Your task to perform on an android device: Go to privacy settings Image 0: 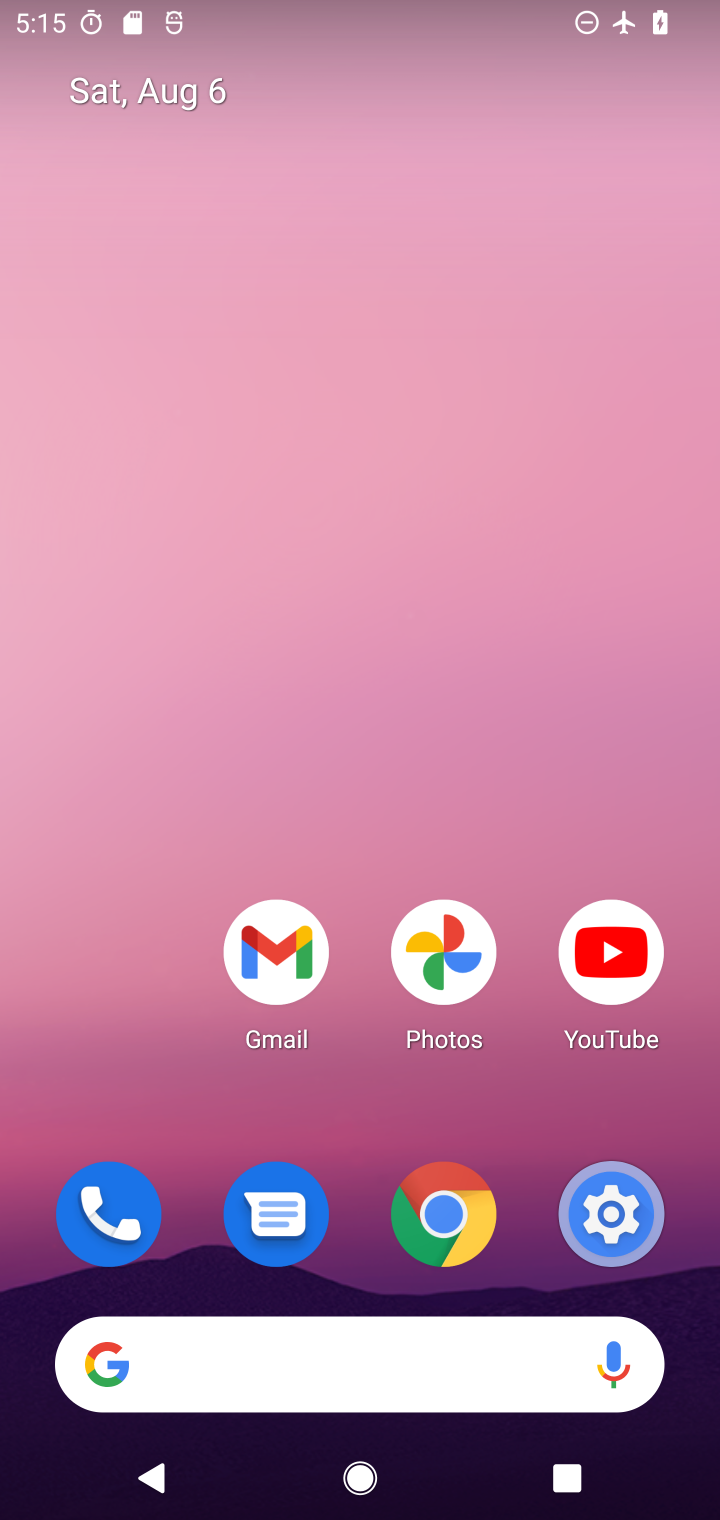
Step 0: click (608, 1209)
Your task to perform on an android device: Go to privacy settings Image 1: 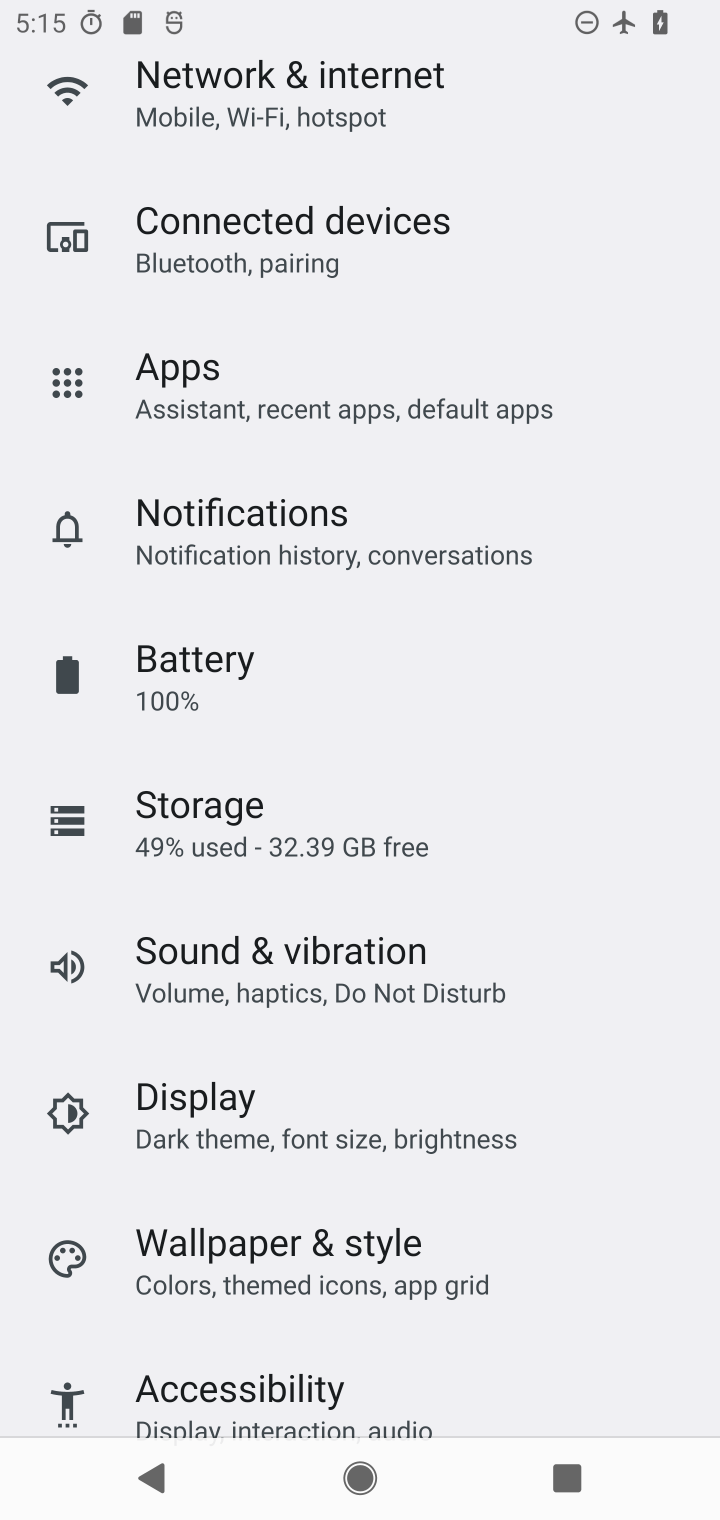
Step 1: drag from (326, 1254) to (282, 706)
Your task to perform on an android device: Go to privacy settings Image 2: 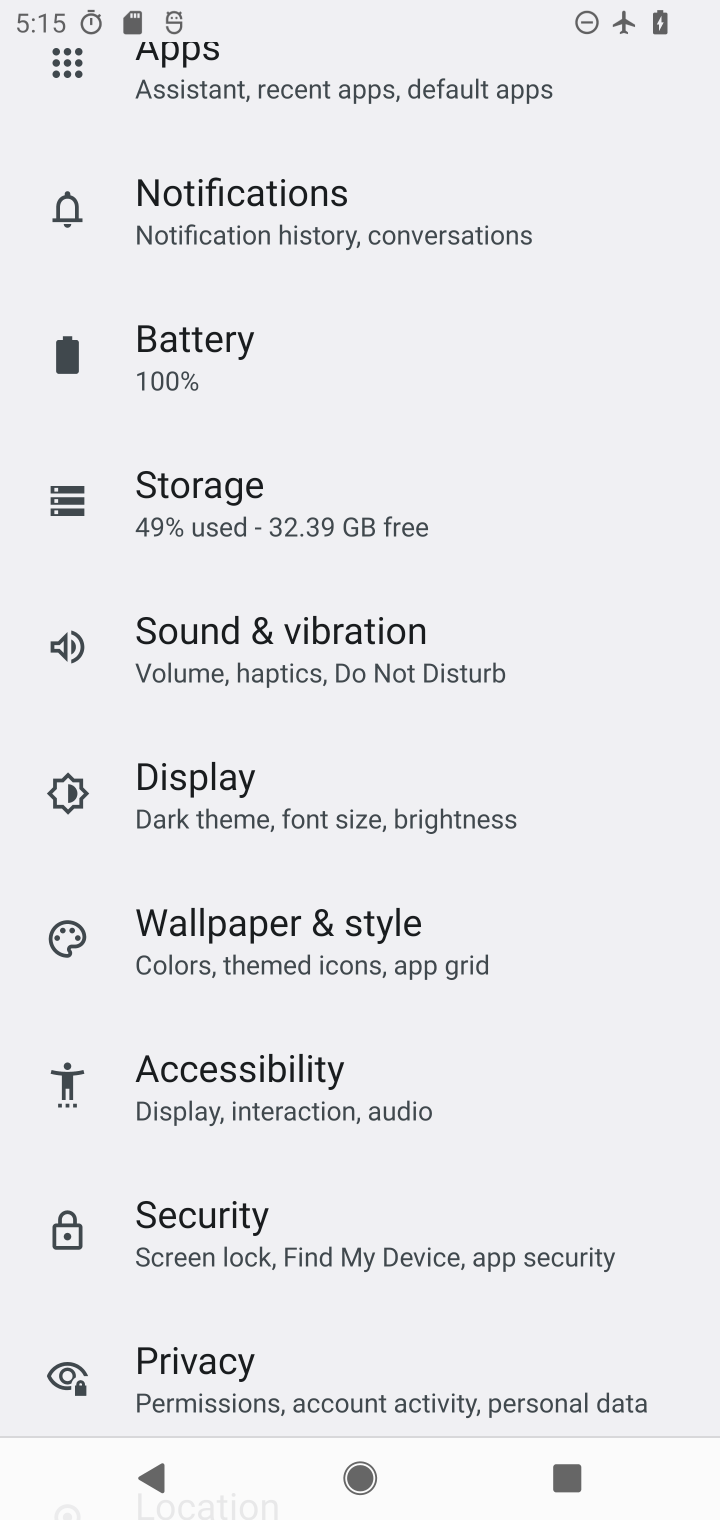
Step 2: click (262, 1376)
Your task to perform on an android device: Go to privacy settings Image 3: 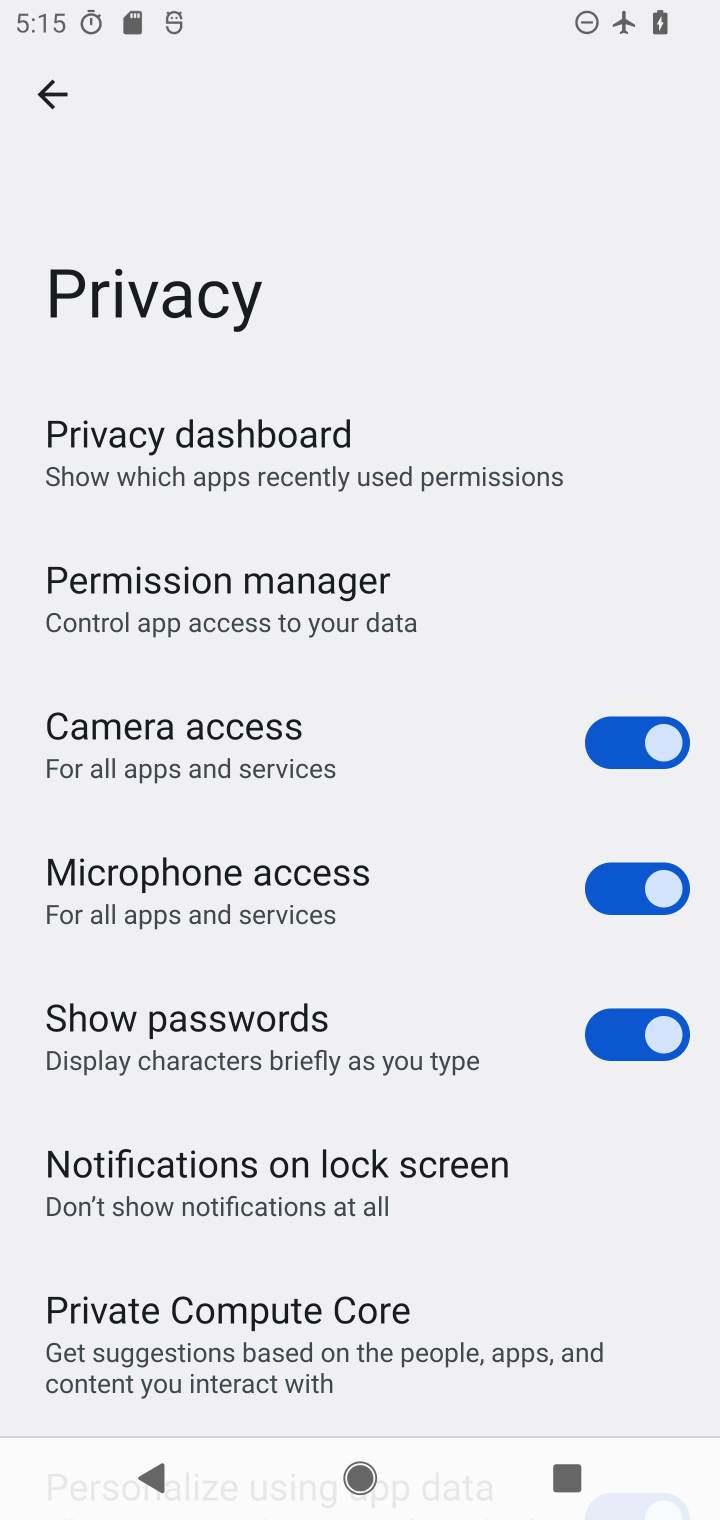
Step 3: task complete